Your task to perform on an android device: Go to notification settings Image 0: 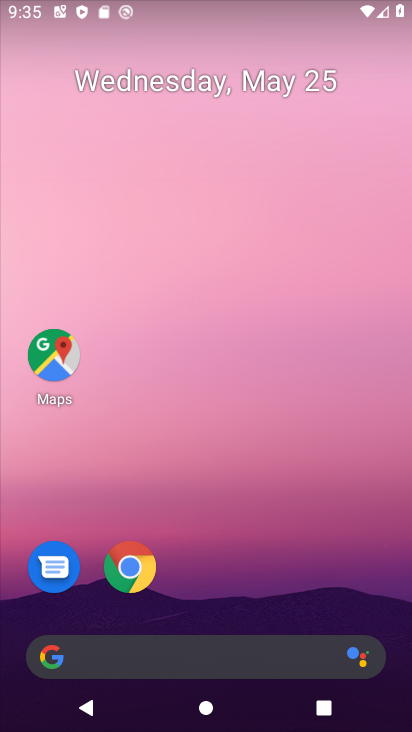
Step 0: drag from (282, 561) to (290, 12)
Your task to perform on an android device: Go to notification settings Image 1: 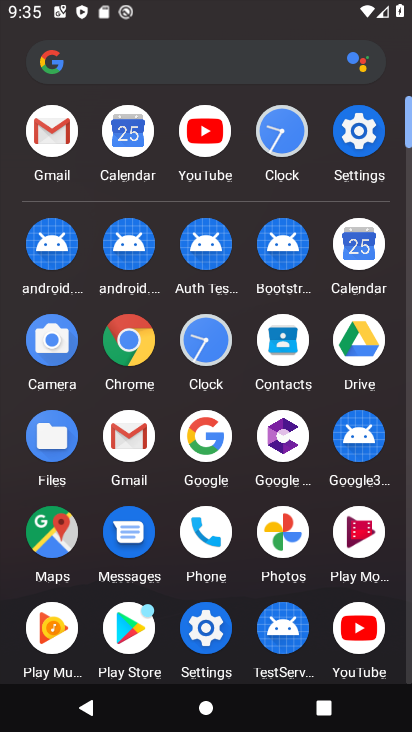
Step 1: click (357, 175)
Your task to perform on an android device: Go to notification settings Image 2: 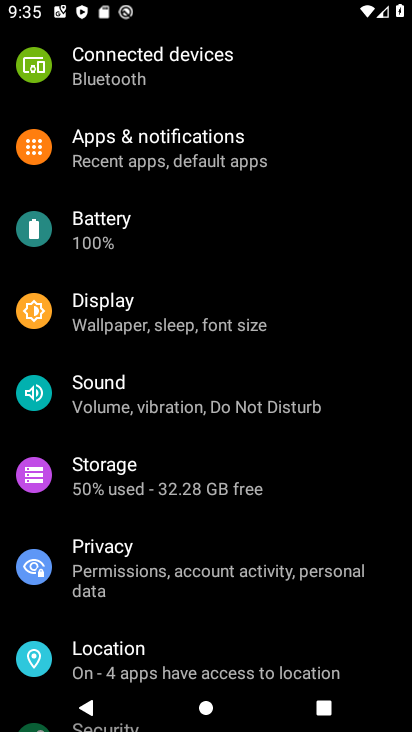
Step 2: click (232, 161)
Your task to perform on an android device: Go to notification settings Image 3: 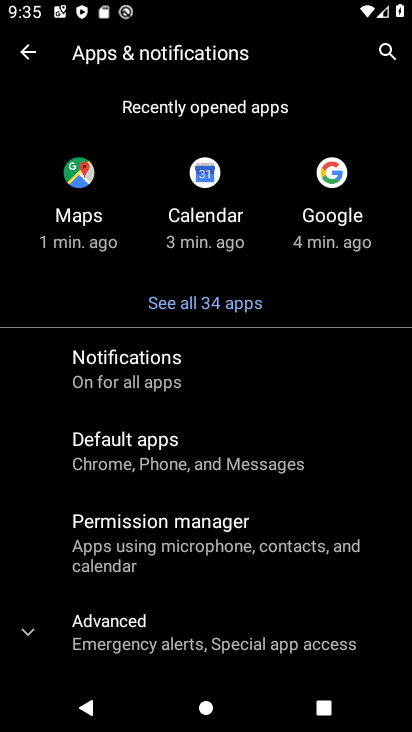
Step 3: click (226, 378)
Your task to perform on an android device: Go to notification settings Image 4: 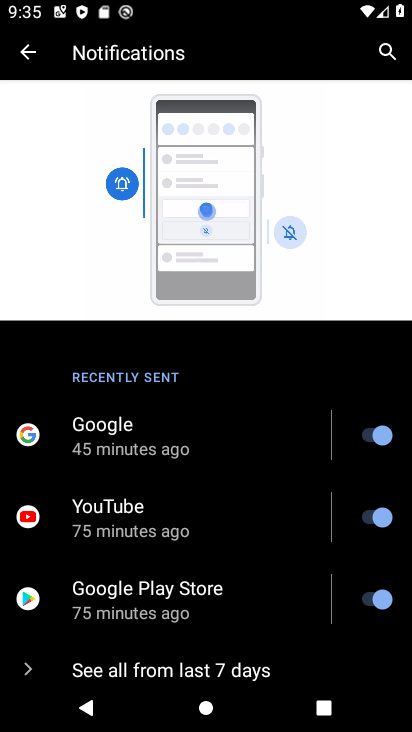
Step 4: task complete